Your task to perform on an android device: move a message to another label in the gmail app Image 0: 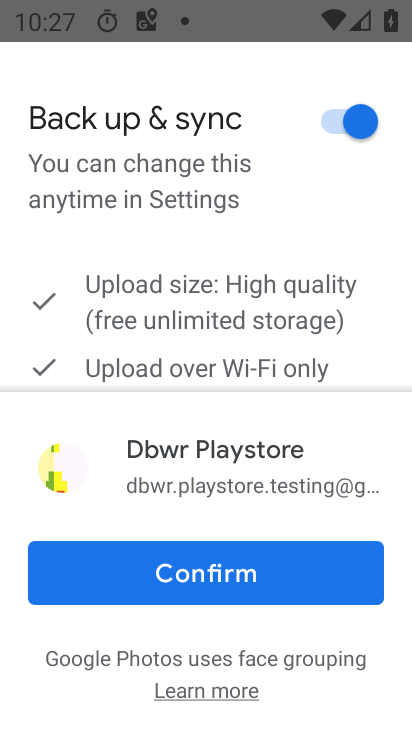
Step 0: press home button
Your task to perform on an android device: move a message to another label in the gmail app Image 1: 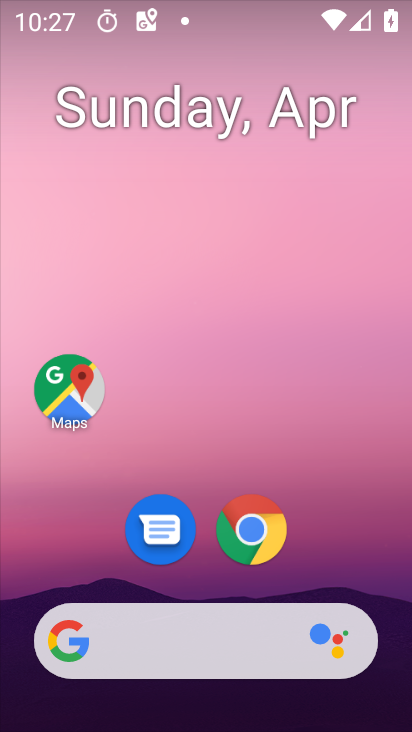
Step 1: drag from (201, 563) to (203, 1)
Your task to perform on an android device: move a message to another label in the gmail app Image 2: 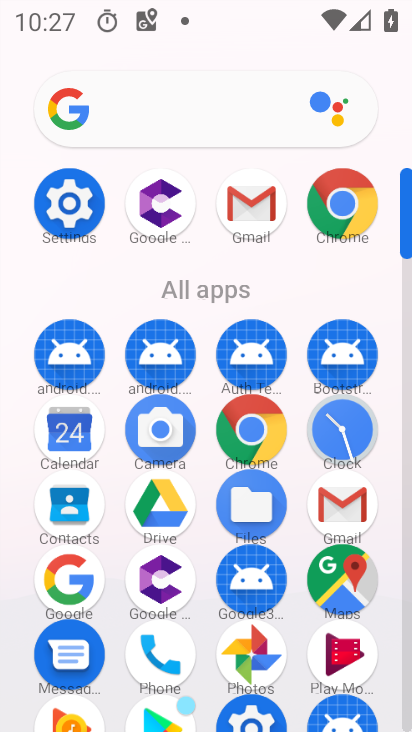
Step 2: click (229, 195)
Your task to perform on an android device: move a message to another label in the gmail app Image 3: 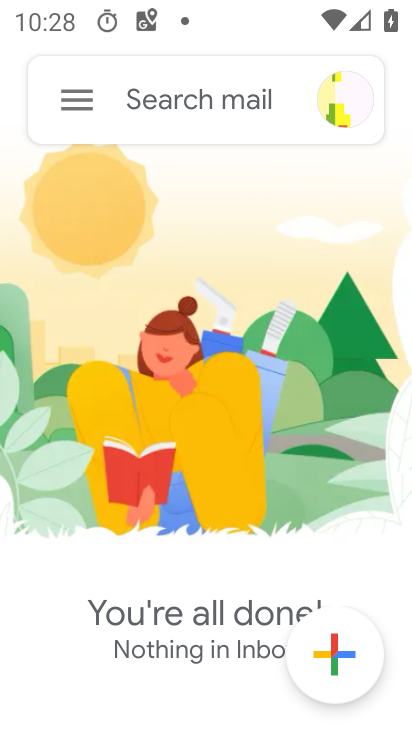
Step 3: task complete